Your task to perform on an android device: turn on the 24-hour format for clock Image 0: 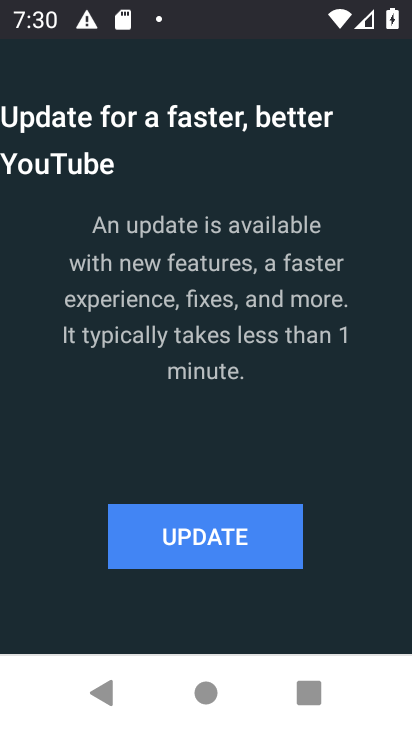
Step 0: press home button
Your task to perform on an android device: turn on the 24-hour format for clock Image 1: 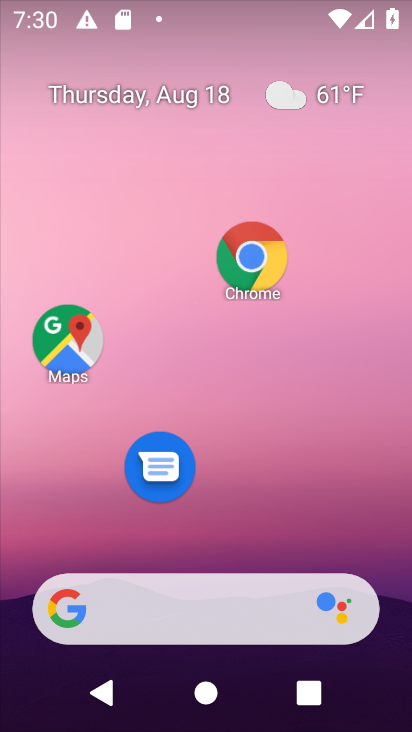
Step 1: drag from (279, 421) to (342, 100)
Your task to perform on an android device: turn on the 24-hour format for clock Image 2: 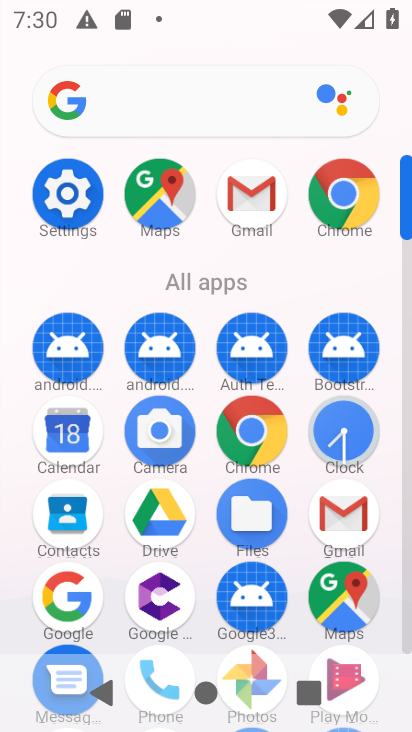
Step 2: click (344, 176)
Your task to perform on an android device: turn on the 24-hour format for clock Image 3: 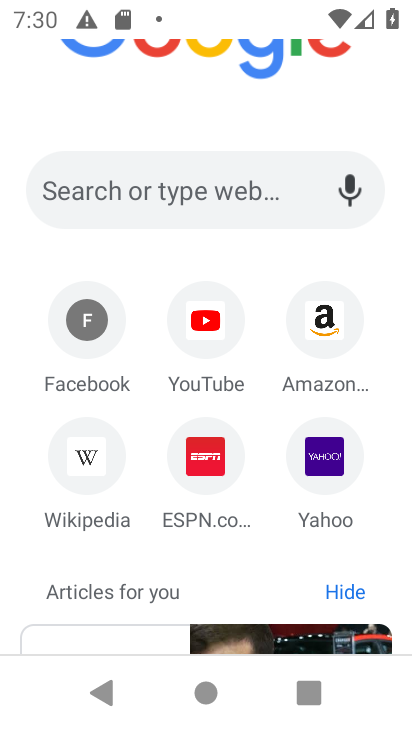
Step 3: task complete